Your task to perform on an android device: What is the news today? Image 0: 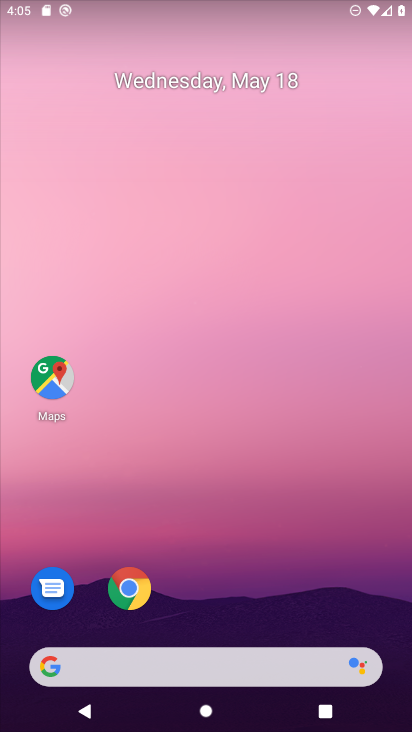
Step 0: click (164, 671)
Your task to perform on an android device: What is the news today? Image 1: 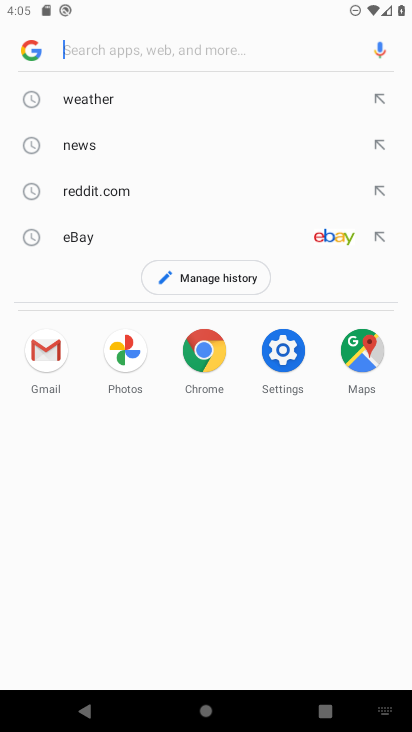
Step 1: click (128, 104)
Your task to perform on an android device: What is the news today? Image 2: 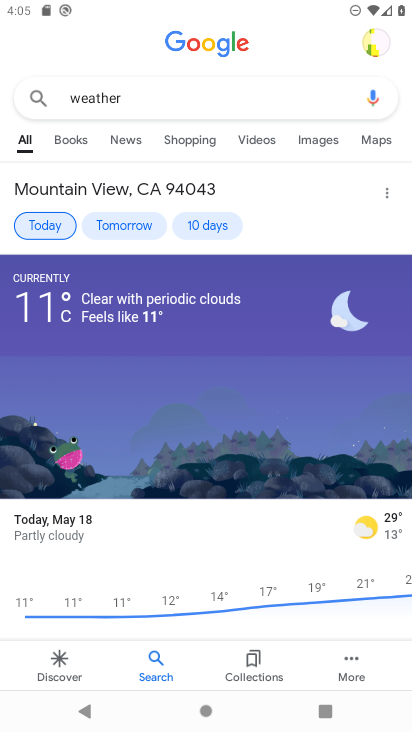
Step 2: task complete